Your task to perform on an android device: set default search engine in the chrome app Image 0: 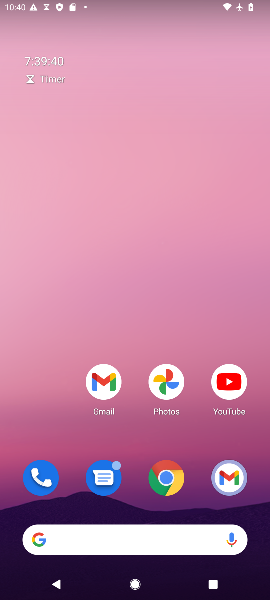
Step 0: click (162, 479)
Your task to perform on an android device: set default search engine in the chrome app Image 1: 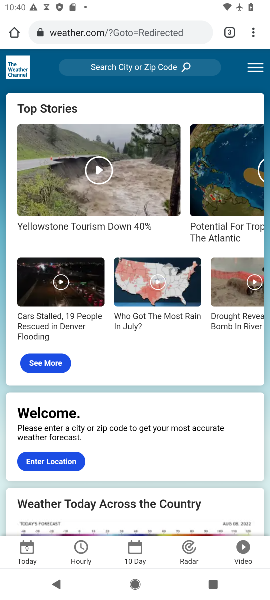
Step 1: click (251, 28)
Your task to perform on an android device: set default search engine in the chrome app Image 2: 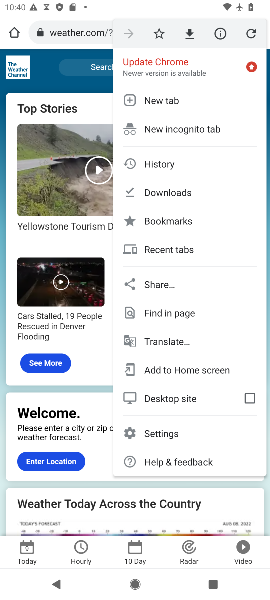
Step 2: click (180, 436)
Your task to perform on an android device: set default search engine in the chrome app Image 3: 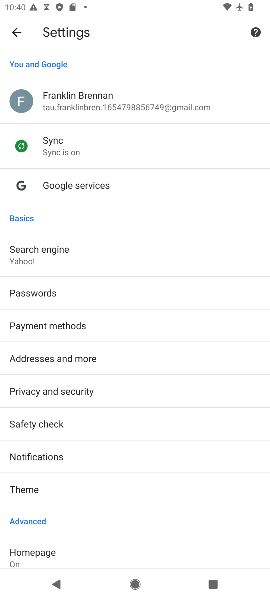
Step 3: click (86, 258)
Your task to perform on an android device: set default search engine in the chrome app Image 4: 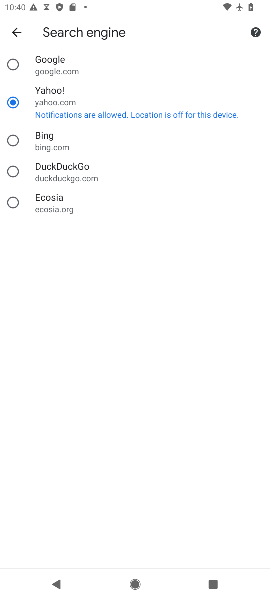
Step 4: click (39, 63)
Your task to perform on an android device: set default search engine in the chrome app Image 5: 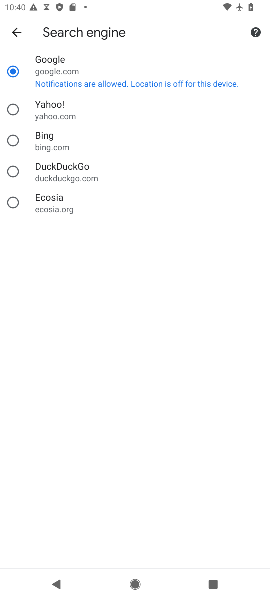
Step 5: task complete